Your task to perform on an android device: turn on showing notifications on the lock screen Image 0: 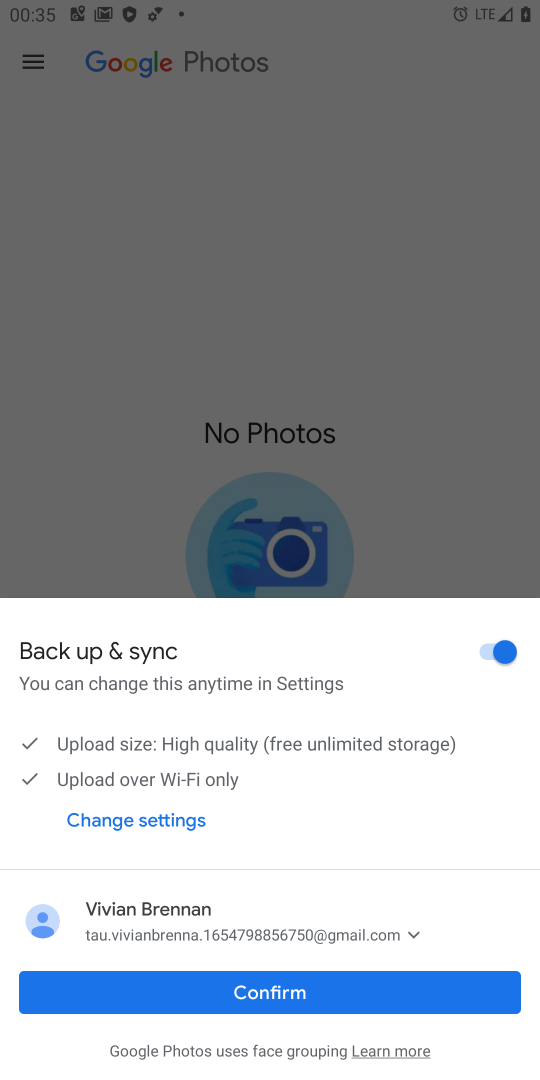
Step 0: press home button
Your task to perform on an android device: turn on showing notifications on the lock screen Image 1: 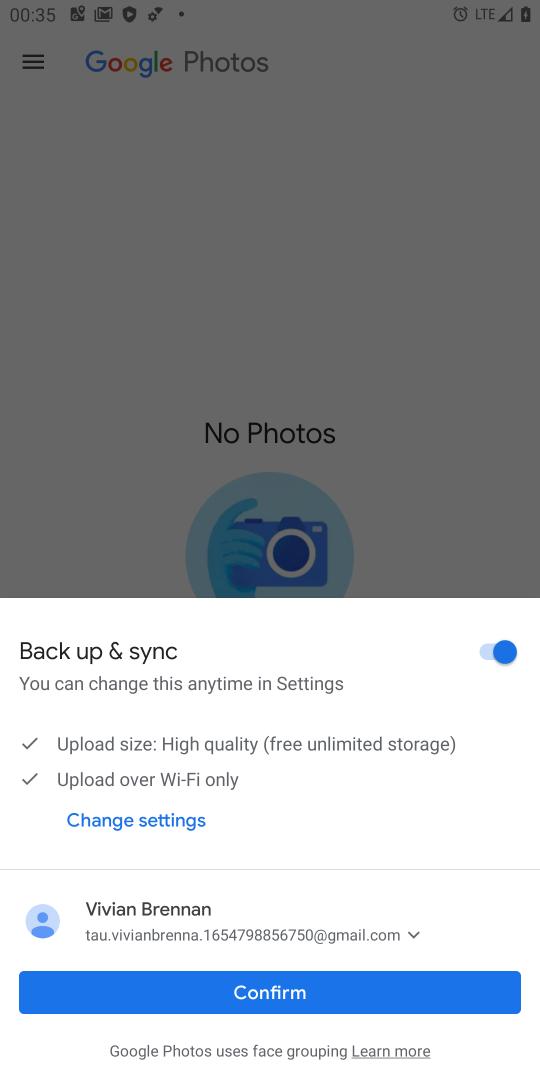
Step 1: press home button
Your task to perform on an android device: turn on showing notifications on the lock screen Image 2: 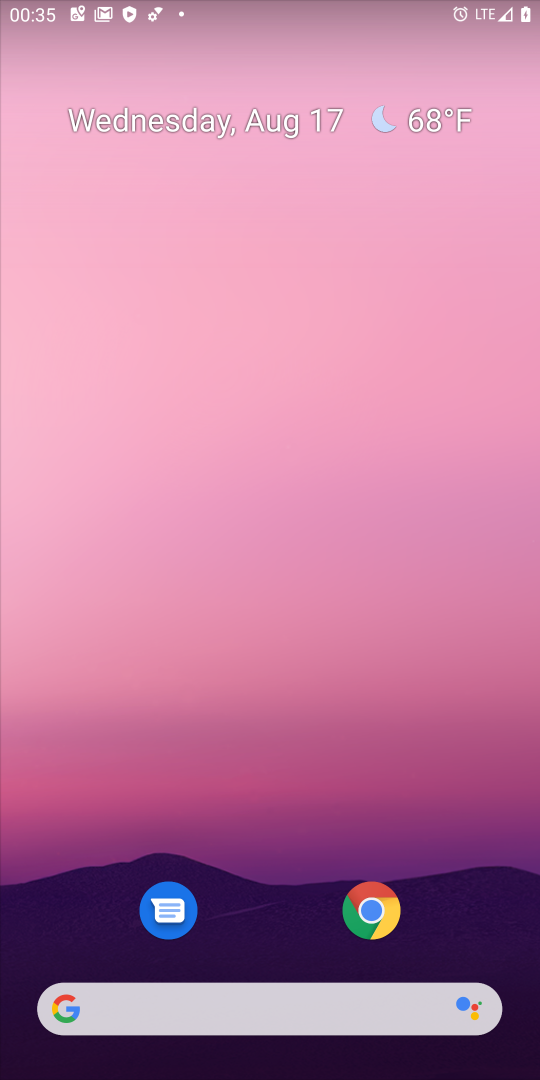
Step 2: drag from (249, 902) to (319, 57)
Your task to perform on an android device: turn on showing notifications on the lock screen Image 3: 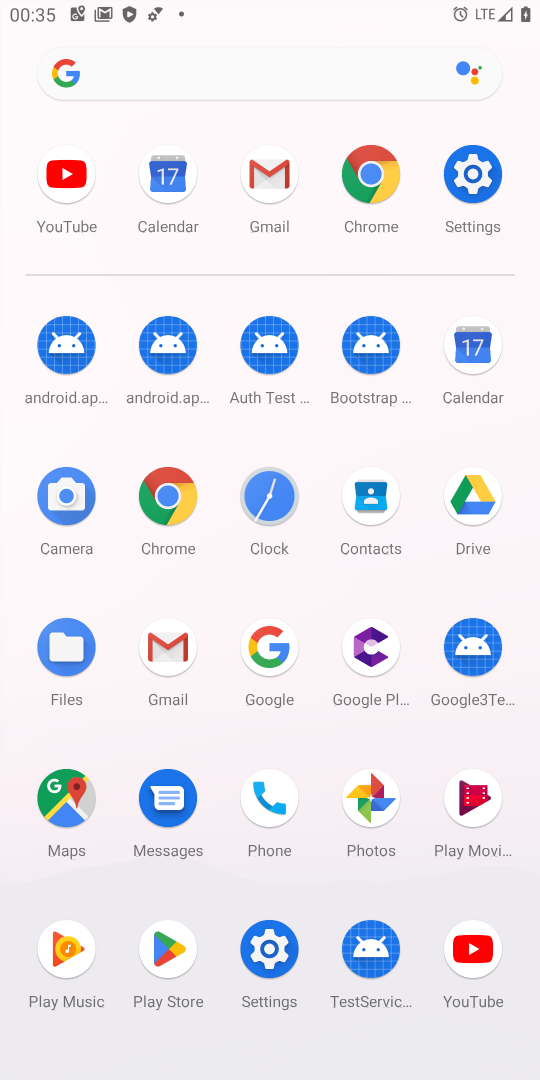
Step 3: click (265, 936)
Your task to perform on an android device: turn on showing notifications on the lock screen Image 4: 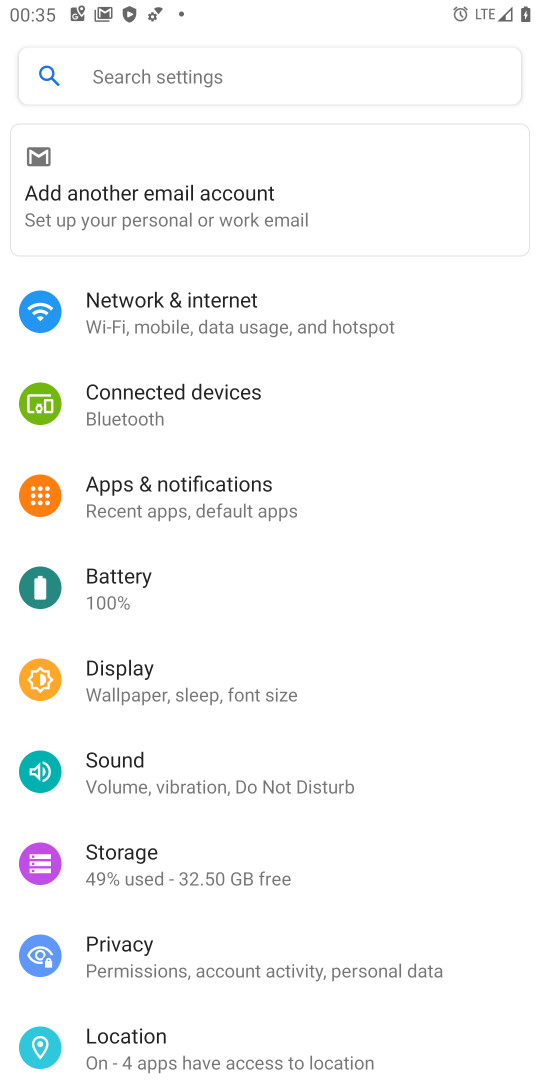
Step 4: click (244, 492)
Your task to perform on an android device: turn on showing notifications on the lock screen Image 5: 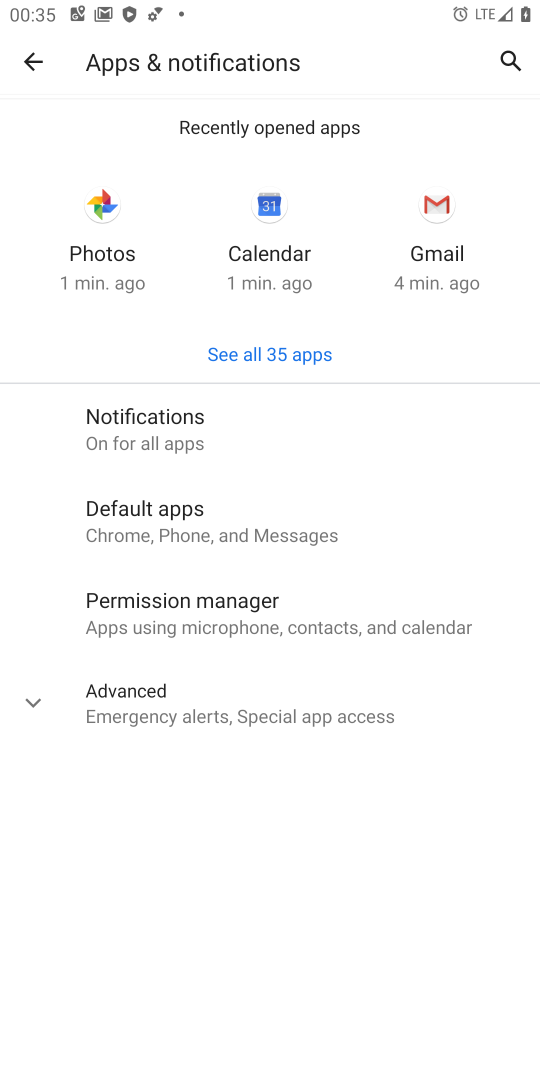
Step 5: click (177, 437)
Your task to perform on an android device: turn on showing notifications on the lock screen Image 6: 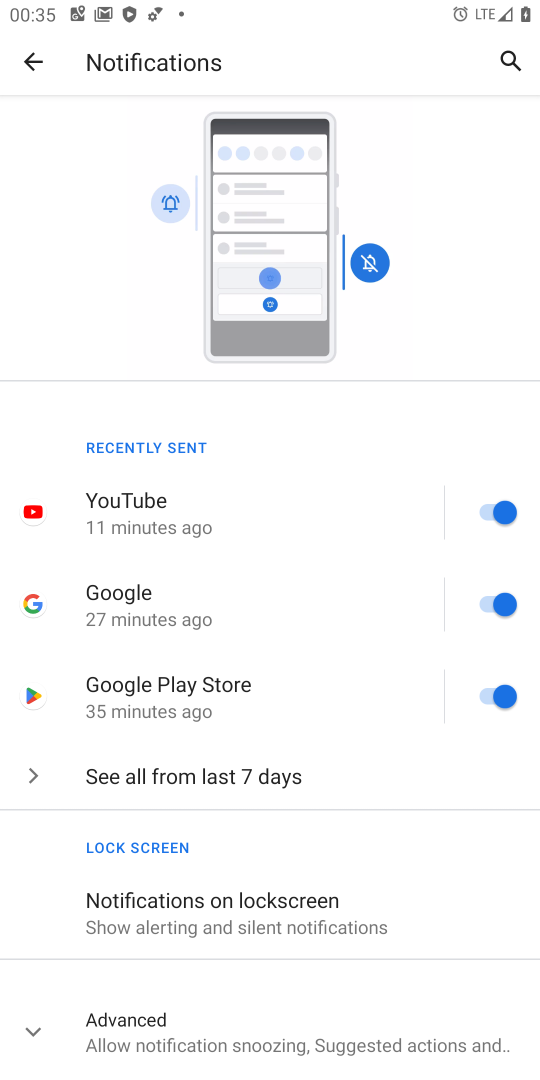
Step 6: drag from (300, 901) to (331, 151)
Your task to perform on an android device: turn on showing notifications on the lock screen Image 7: 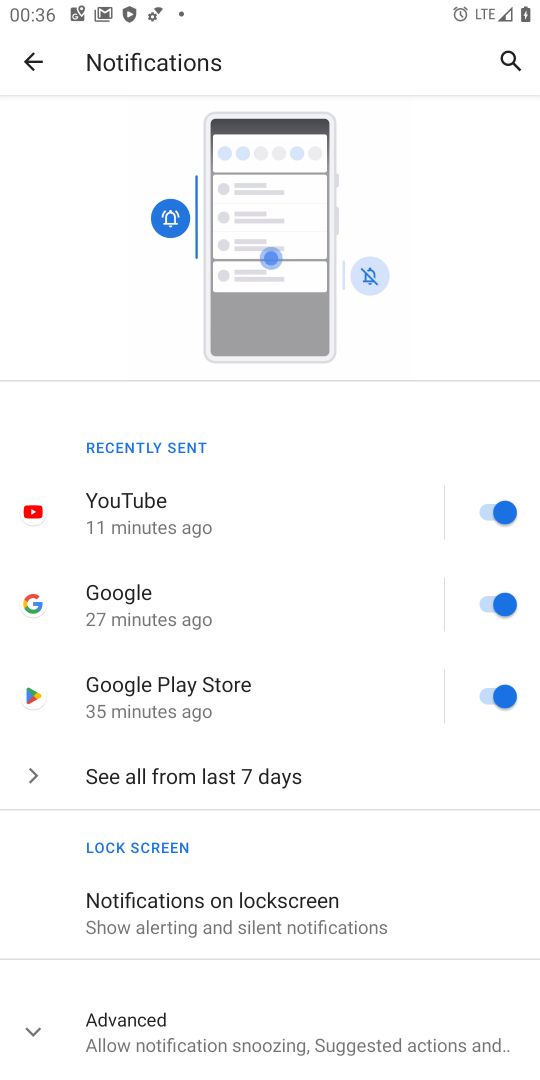
Step 7: click (283, 889)
Your task to perform on an android device: turn on showing notifications on the lock screen Image 8: 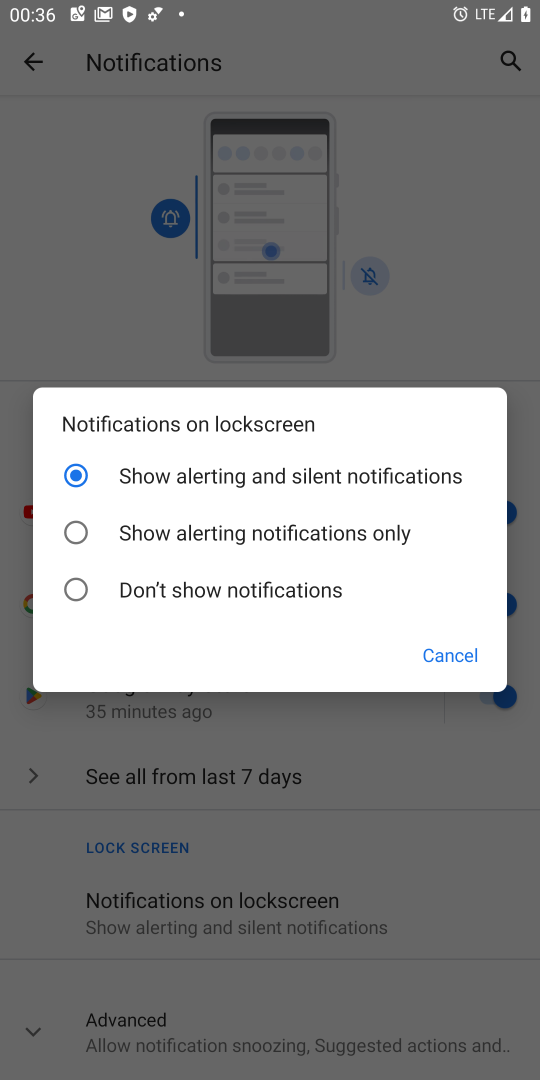
Step 8: task complete